Your task to perform on an android device: toggle wifi Image 0: 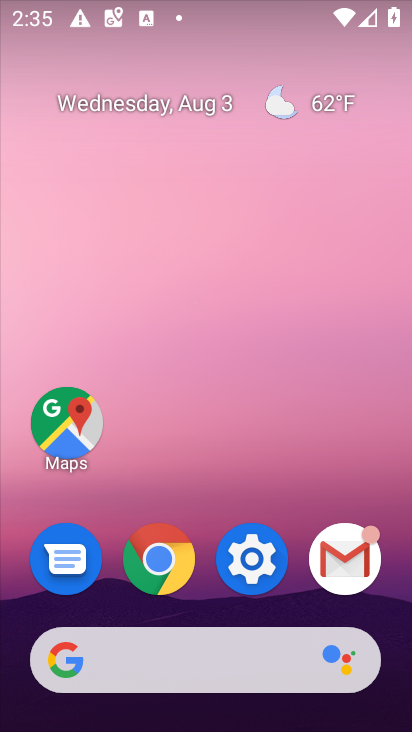
Step 0: click (260, 553)
Your task to perform on an android device: toggle wifi Image 1: 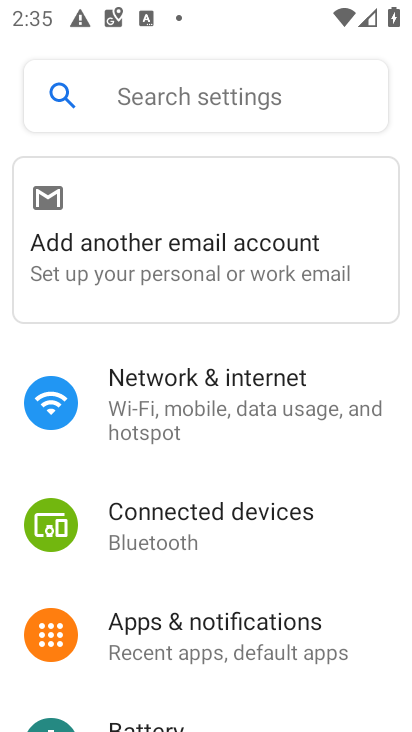
Step 1: click (216, 407)
Your task to perform on an android device: toggle wifi Image 2: 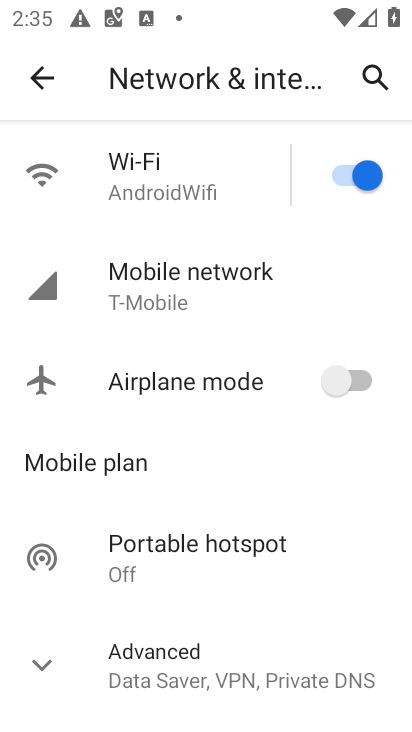
Step 2: click (156, 186)
Your task to perform on an android device: toggle wifi Image 3: 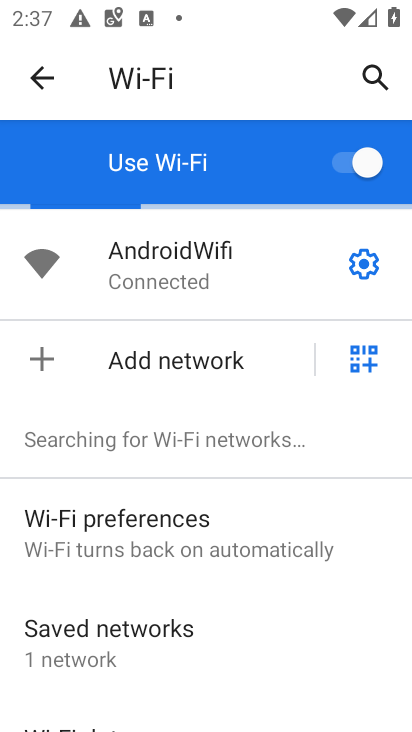
Step 3: task complete